Your task to perform on an android device: Go to location settings Image 0: 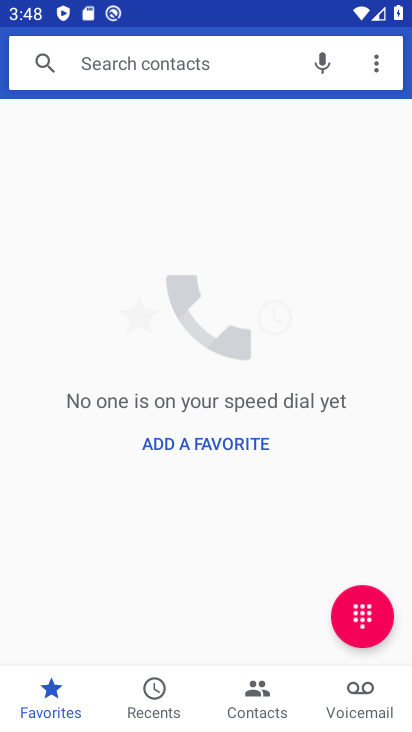
Step 0: press home button
Your task to perform on an android device: Go to location settings Image 1: 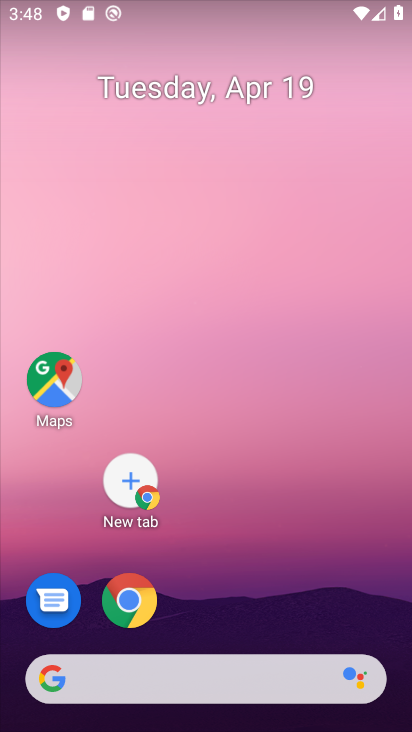
Step 1: drag from (242, 10) to (321, 457)
Your task to perform on an android device: Go to location settings Image 2: 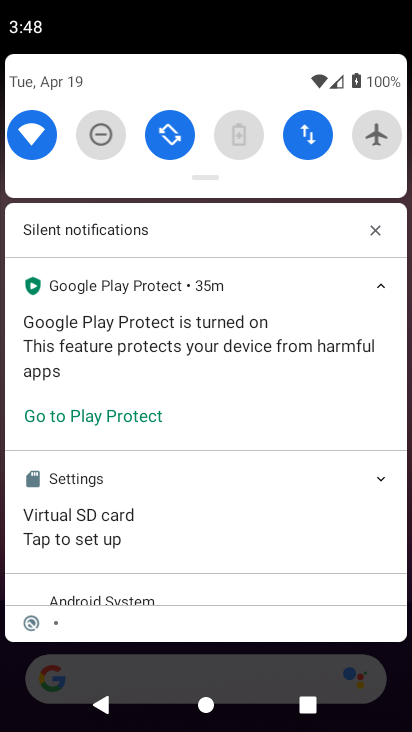
Step 2: drag from (248, 75) to (371, 697)
Your task to perform on an android device: Go to location settings Image 3: 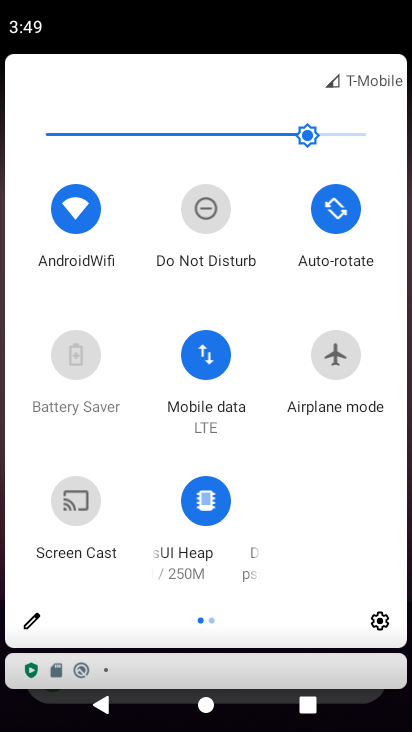
Step 3: click (371, 628)
Your task to perform on an android device: Go to location settings Image 4: 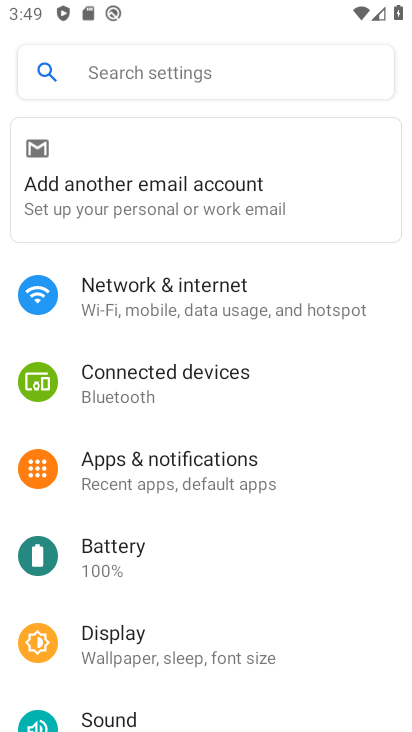
Step 4: drag from (184, 648) to (178, 204)
Your task to perform on an android device: Go to location settings Image 5: 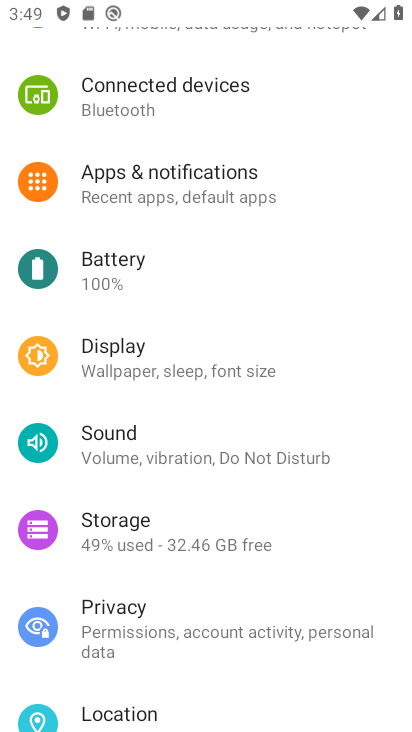
Step 5: click (130, 717)
Your task to perform on an android device: Go to location settings Image 6: 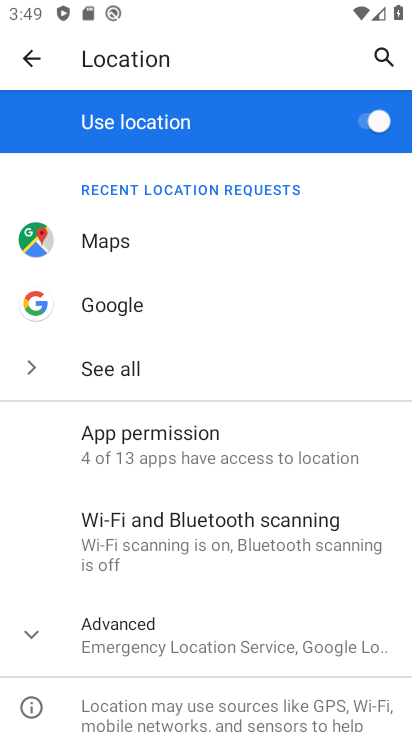
Step 6: task complete